Your task to perform on an android device: Clear the cart on newegg.com. Add "razer kraken" to the cart on newegg.com, then select checkout. Image 0: 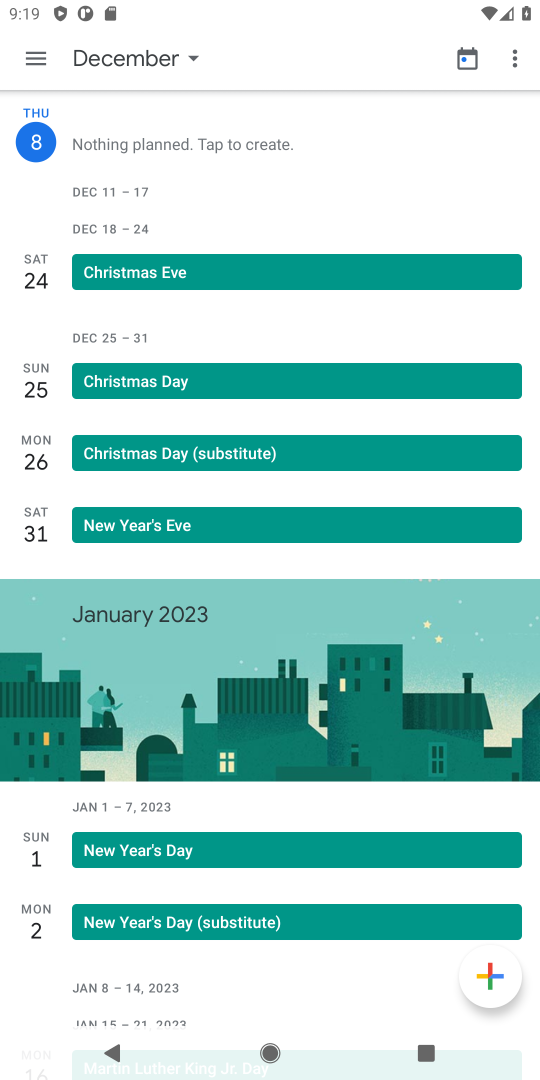
Step 0: press home button
Your task to perform on an android device: Clear the cart on newegg.com. Add "razer kraken" to the cart on newegg.com, then select checkout. Image 1: 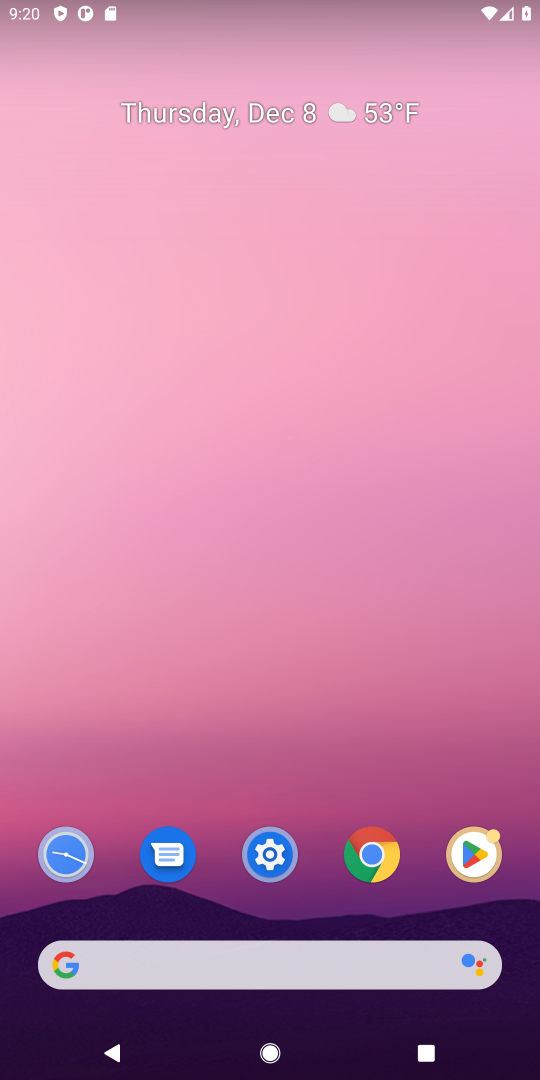
Step 1: click (127, 960)
Your task to perform on an android device: Clear the cart on newegg.com. Add "razer kraken" to the cart on newegg.com, then select checkout. Image 2: 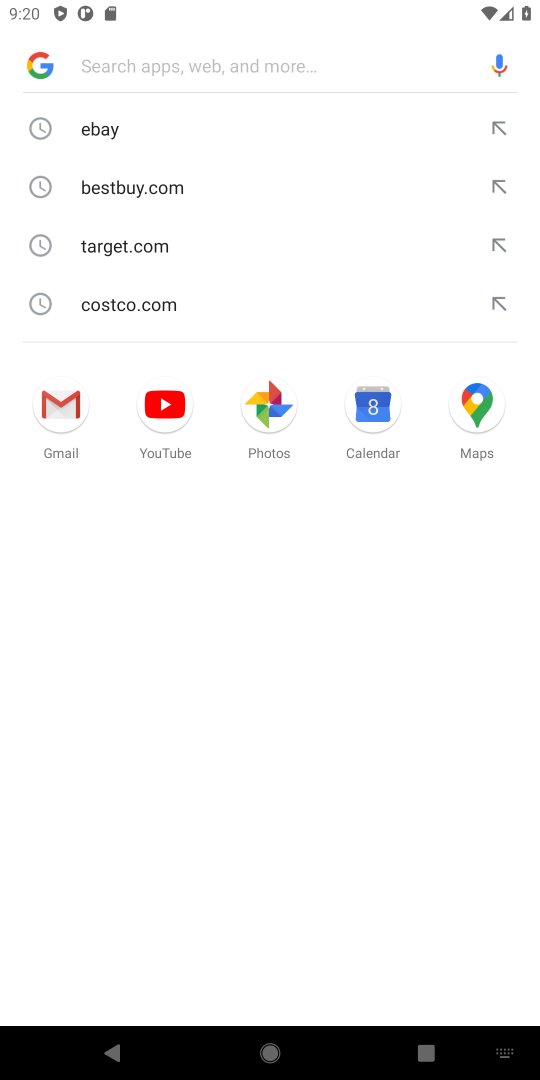
Step 2: type "newegg.com"
Your task to perform on an android device: Clear the cart on newegg.com. Add "razer kraken" to the cart on newegg.com, then select checkout. Image 3: 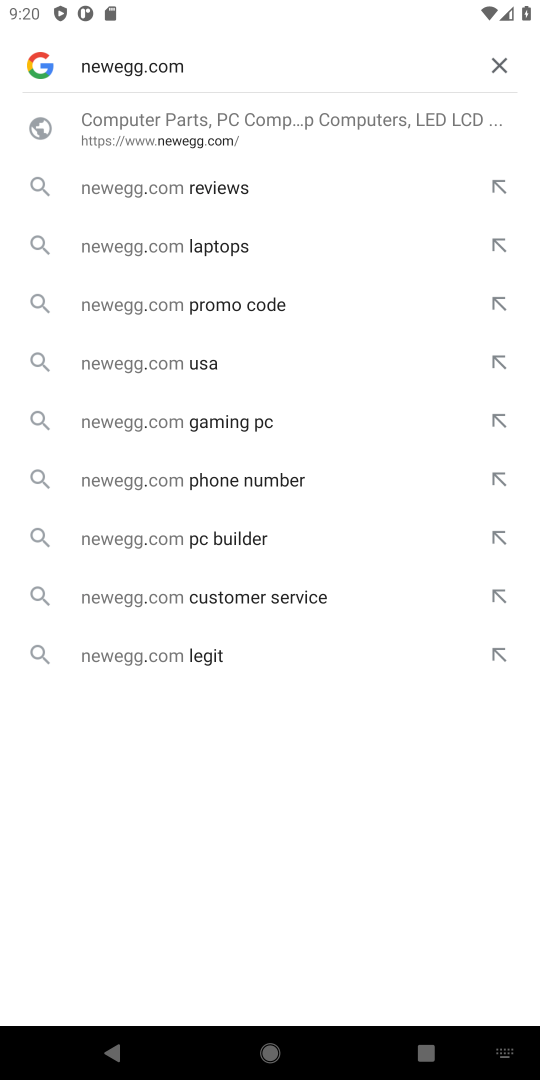
Step 3: press enter
Your task to perform on an android device: Clear the cart on newegg.com. Add "razer kraken" to the cart on newegg.com, then select checkout. Image 4: 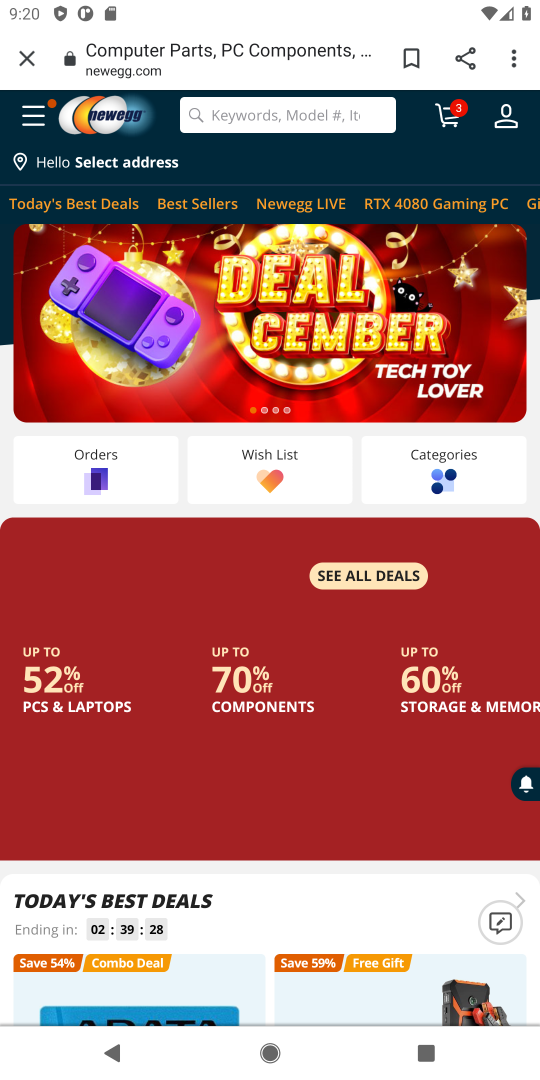
Step 4: click (444, 121)
Your task to perform on an android device: Clear the cart on newegg.com. Add "razer kraken" to the cart on newegg.com, then select checkout. Image 5: 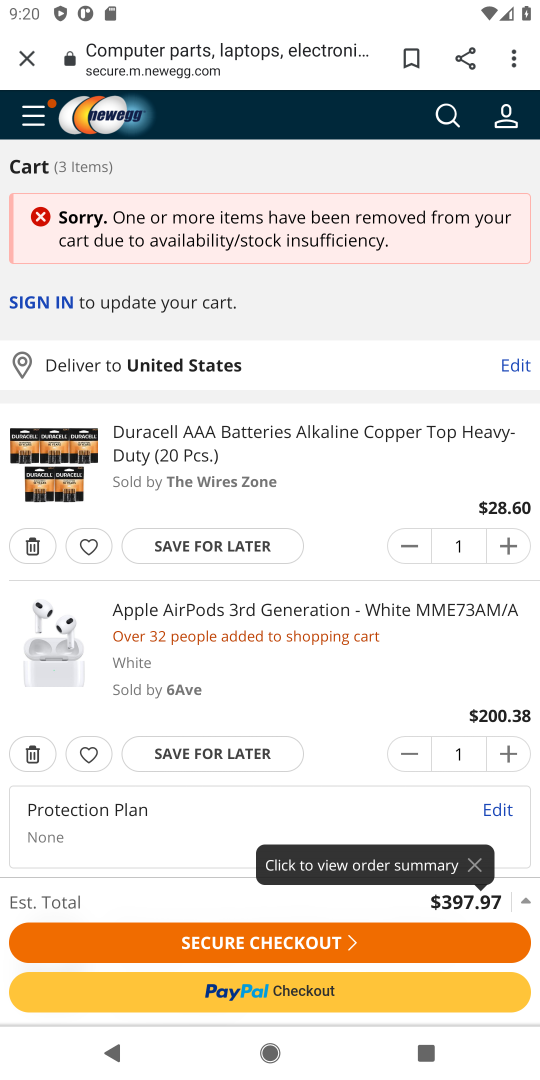
Step 5: click (28, 543)
Your task to perform on an android device: Clear the cart on newegg.com. Add "razer kraken" to the cart on newegg.com, then select checkout. Image 6: 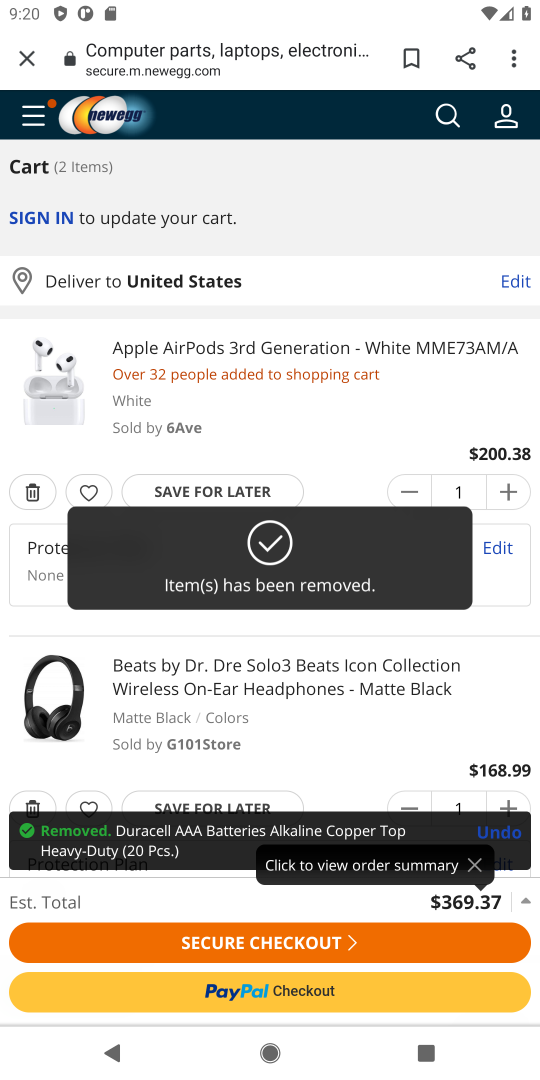
Step 6: click (33, 493)
Your task to perform on an android device: Clear the cart on newegg.com. Add "razer kraken" to the cart on newegg.com, then select checkout. Image 7: 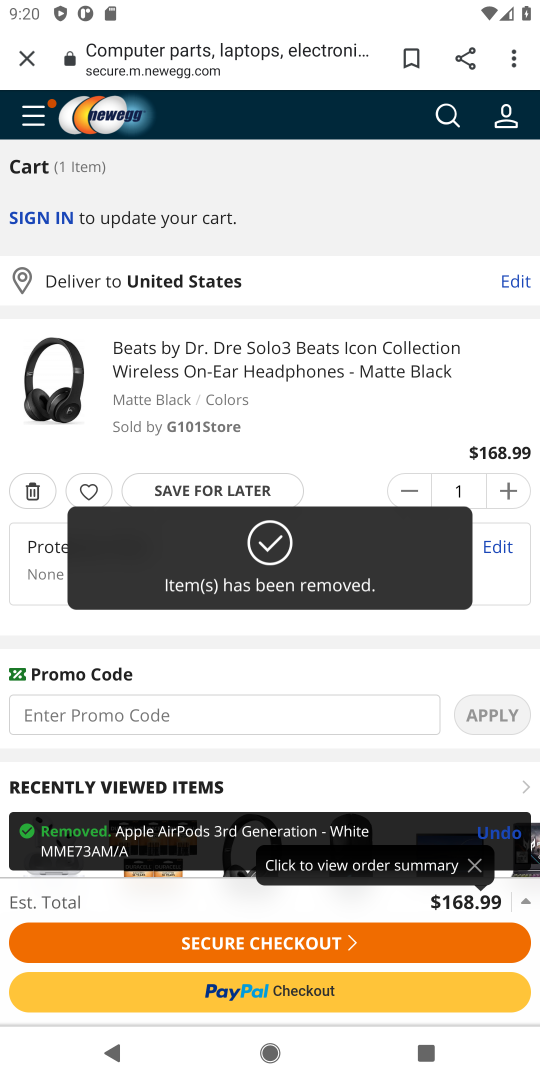
Step 7: click (23, 481)
Your task to perform on an android device: Clear the cart on newegg.com. Add "razer kraken" to the cart on newegg.com, then select checkout. Image 8: 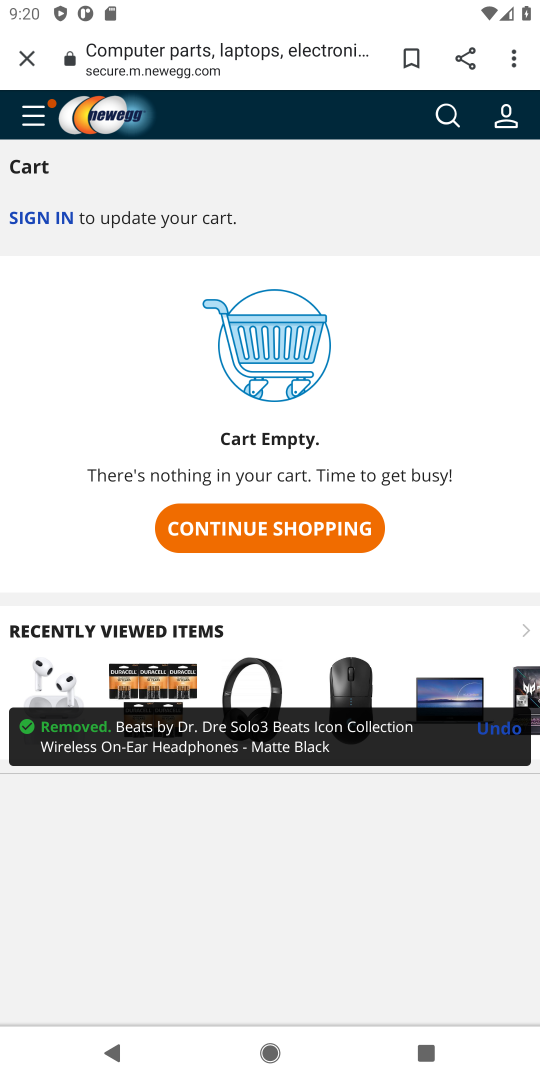
Step 8: click (448, 119)
Your task to perform on an android device: Clear the cart on newegg.com. Add "razer kraken" to the cart on newegg.com, then select checkout. Image 9: 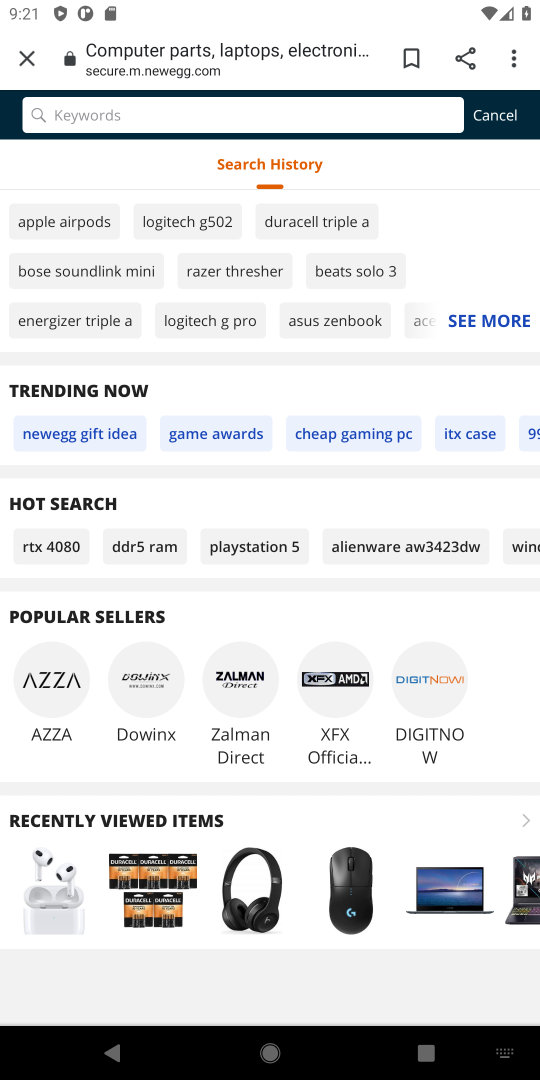
Step 9: type "razer kraken"
Your task to perform on an android device: Clear the cart on newegg.com. Add "razer kraken" to the cart on newegg.com, then select checkout. Image 10: 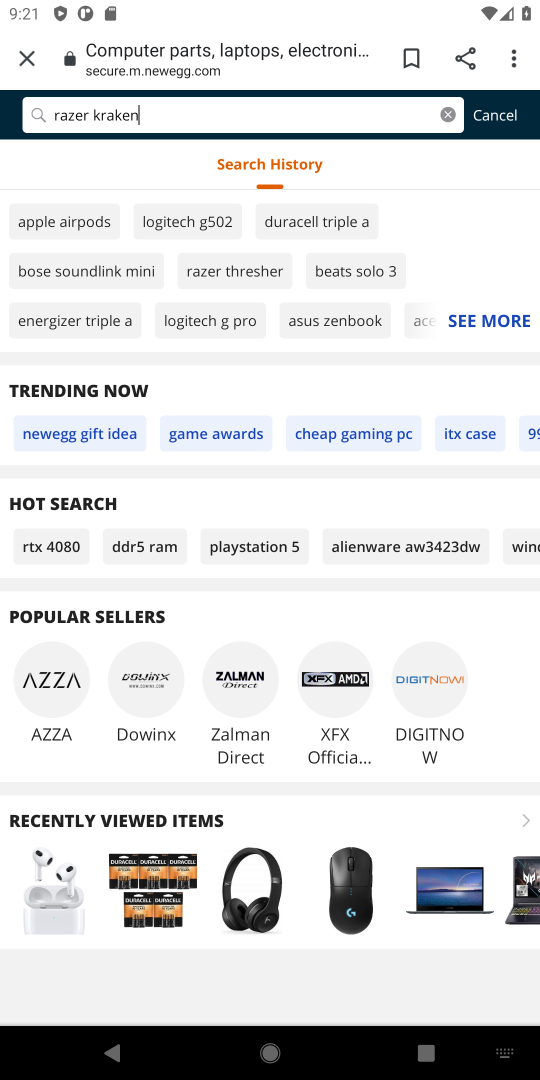
Step 10: press enter
Your task to perform on an android device: Clear the cart on newegg.com. Add "razer kraken" to the cart on newegg.com, then select checkout. Image 11: 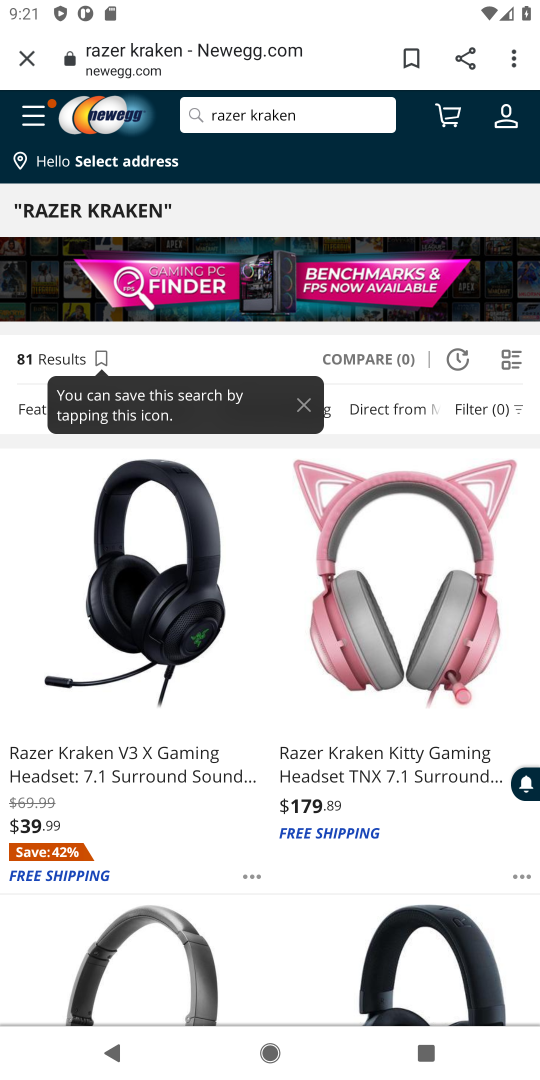
Step 11: click (109, 751)
Your task to perform on an android device: Clear the cart on newegg.com. Add "razer kraken" to the cart on newegg.com, then select checkout. Image 12: 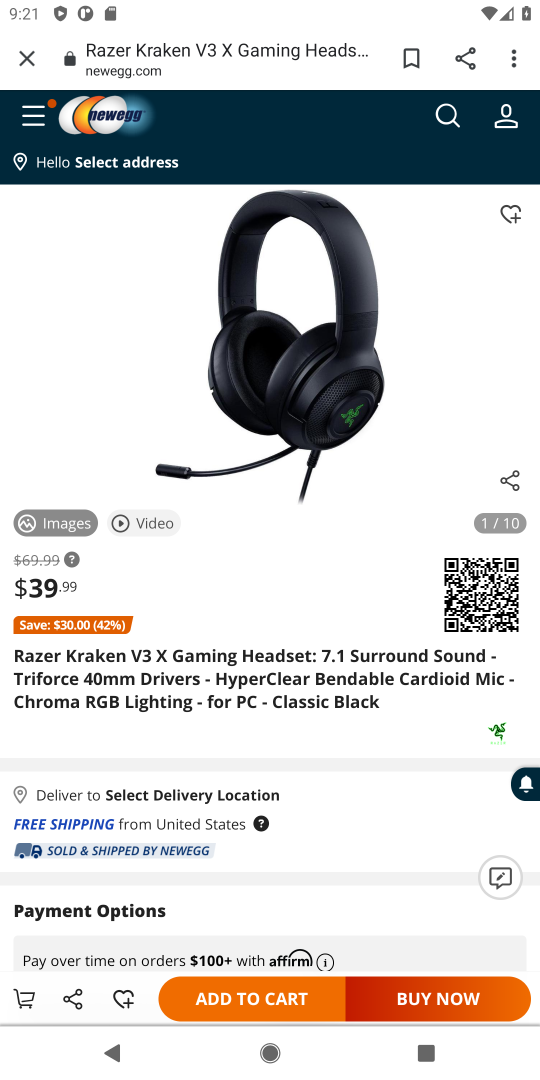
Step 12: click (248, 1002)
Your task to perform on an android device: Clear the cart on newegg.com. Add "razer kraken" to the cart on newegg.com, then select checkout. Image 13: 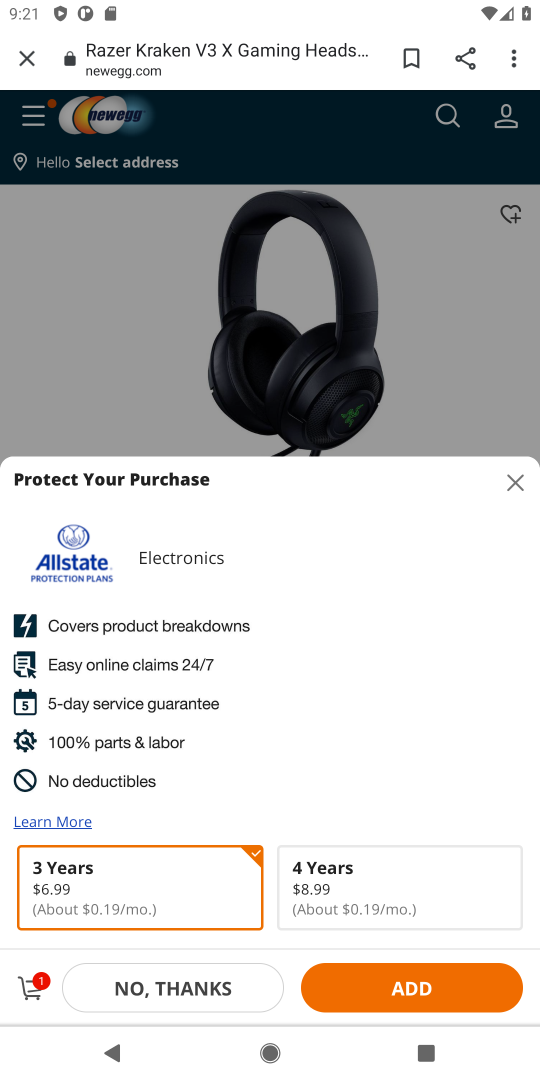
Step 13: click (159, 986)
Your task to perform on an android device: Clear the cart on newegg.com. Add "razer kraken" to the cart on newegg.com, then select checkout. Image 14: 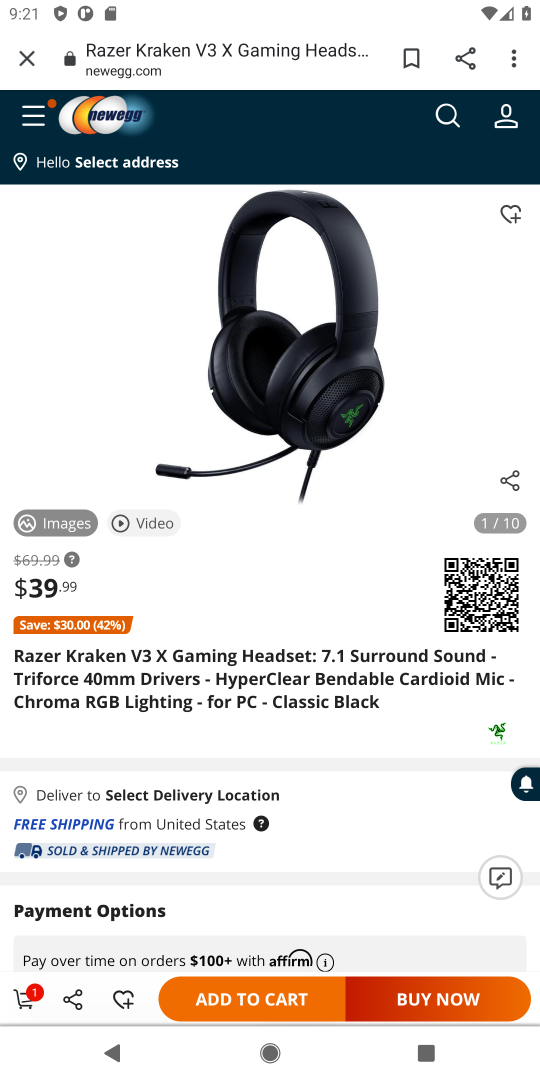
Step 14: click (24, 1002)
Your task to perform on an android device: Clear the cart on newegg.com. Add "razer kraken" to the cart on newegg.com, then select checkout. Image 15: 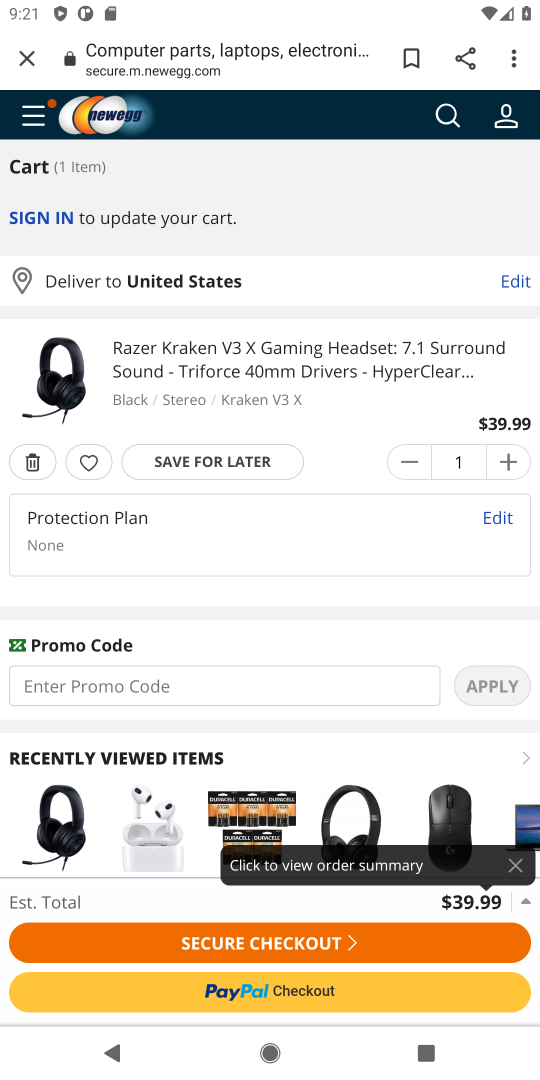
Step 15: click (185, 945)
Your task to perform on an android device: Clear the cart on newegg.com. Add "razer kraken" to the cart on newegg.com, then select checkout. Image 16: 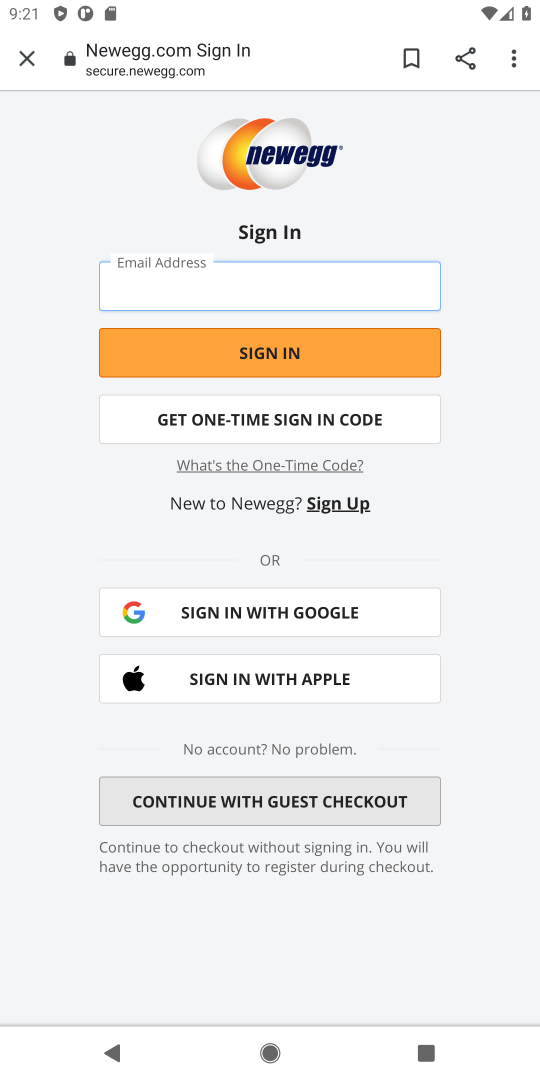
Step 16: task complete